Your task to perform on an android device: change the clock display to show seconds Image 0: 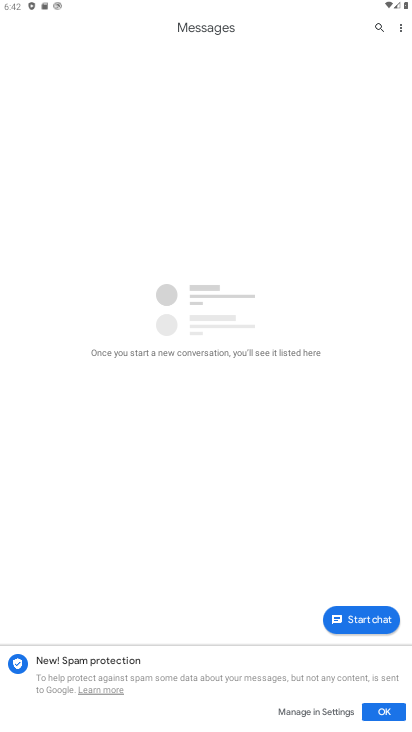
Step 0: press home button
Your task to perform on an android device: change the clock display to show seconds Image 1: 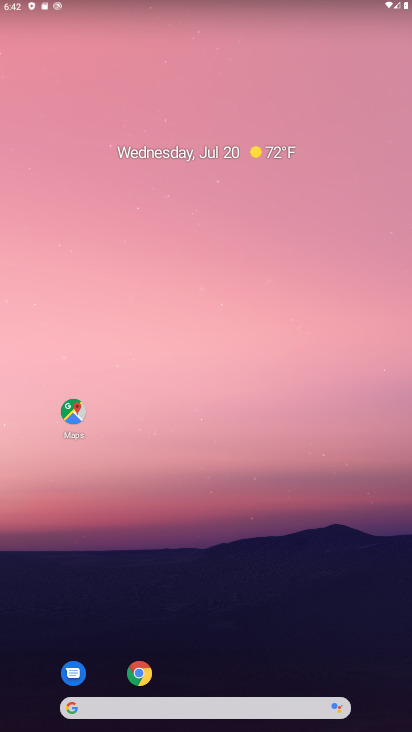
Step 1: drag from (358, 686) to (249, 85)
Your task to perform on an android device: change the clock display to show seconds Image 2: 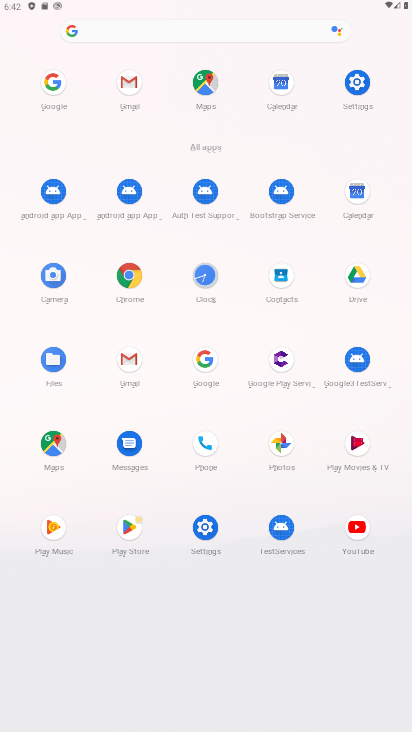
Step 2: click (196, 275)
Your task to perform on an android device: change the clock display to show seconds Image 3: 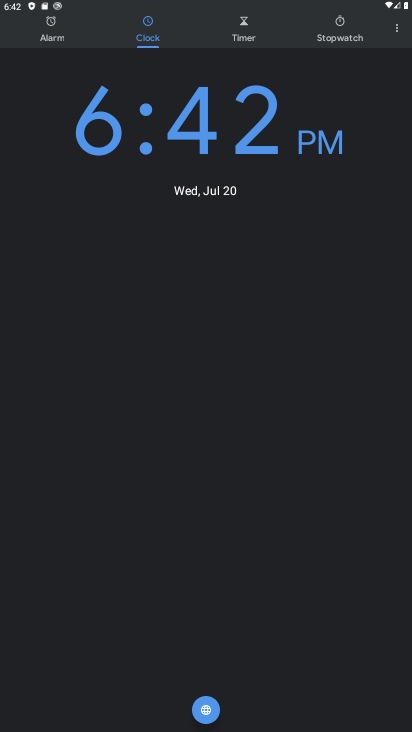
Step 3: click (395, 28)
Your task to perform on an android device: change the clock display to show seconds Image 4: 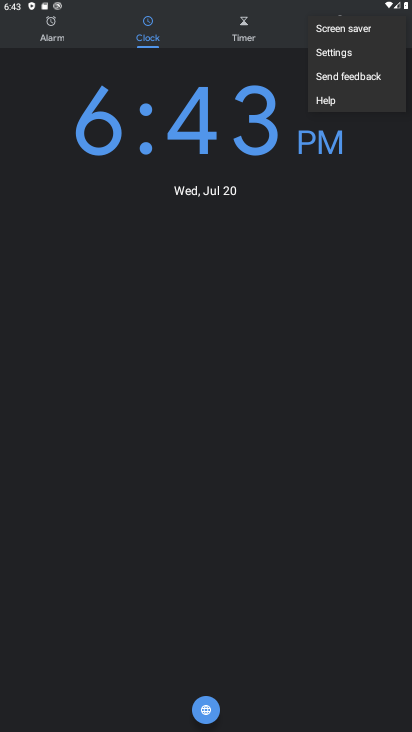
Step 4: click (366, 58)
Your task to perform on an android device: change the clock display to show seconds Image 5: 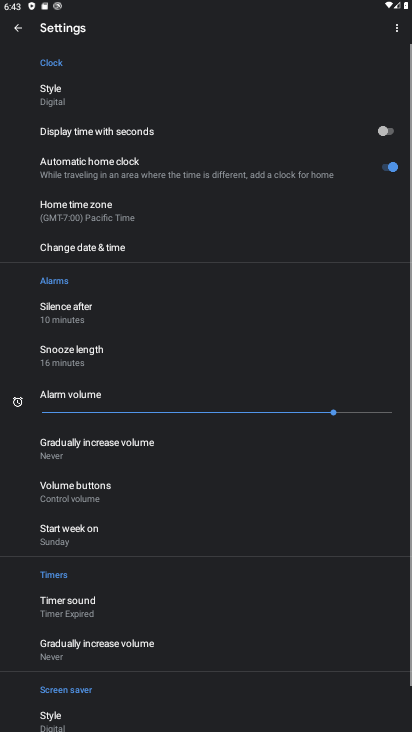
Step 5: click (372, 132)
Your task to perform on an android device: change the clock display to show seconds Image 6: 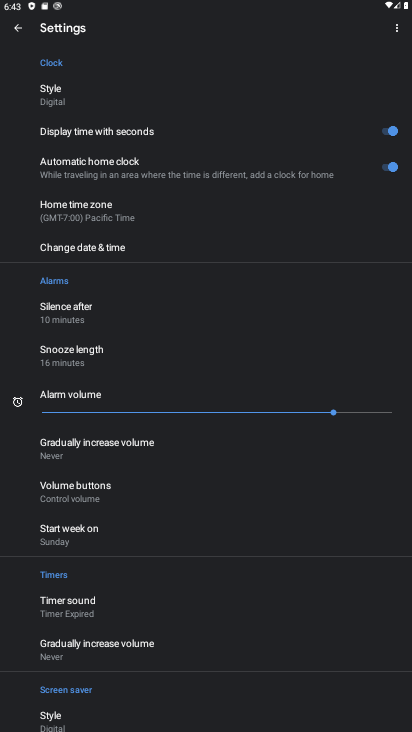
Step 6: task complete